Your task to perform on an android device: change notifications settings Image 0: 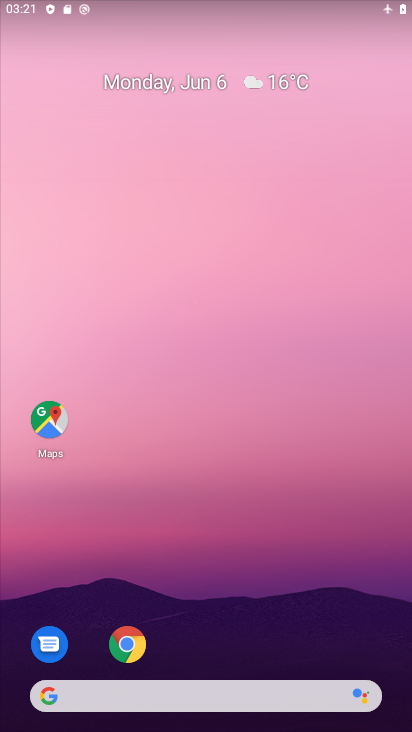
Step 0: drag from (236, 638) to (314, 11)
Your task to perform on an android device: change notifications settings Image 1: 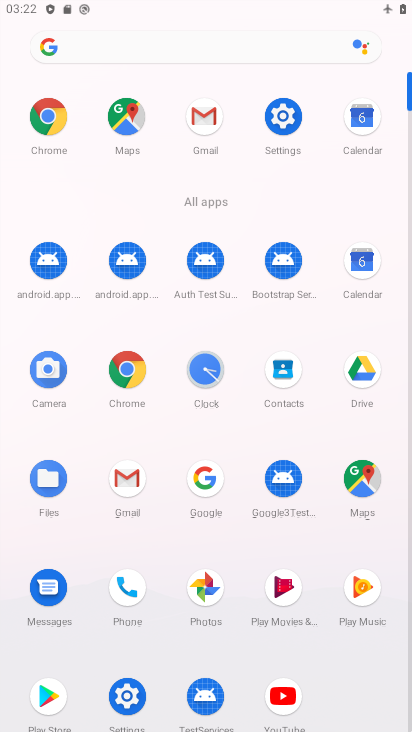
Step 1: click (134, 694)
Your task to perform on an android device: change notifications settings Image 2: 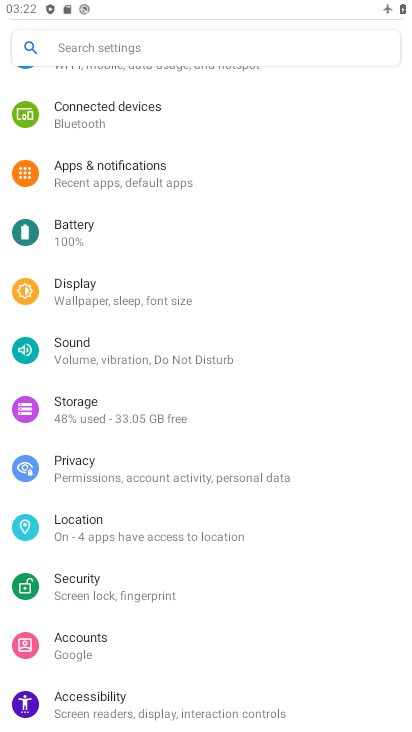
Step 2: click (133, 182)
Your task to perform on an android device: change notifications settings Image 3: 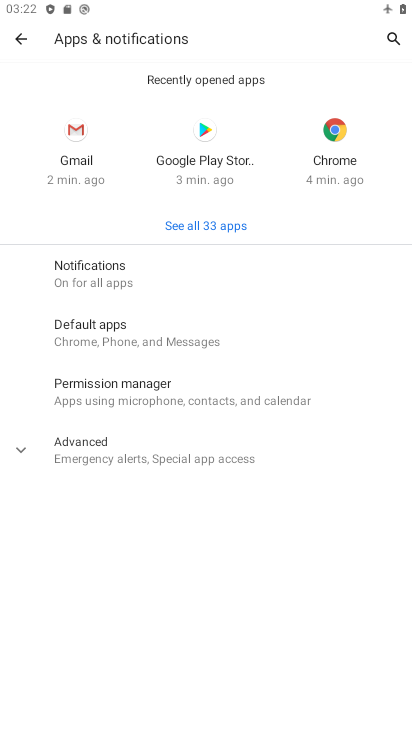
Step 3: click (119, 287)
Your task to perform on an android device: change notifications settings Image 4: 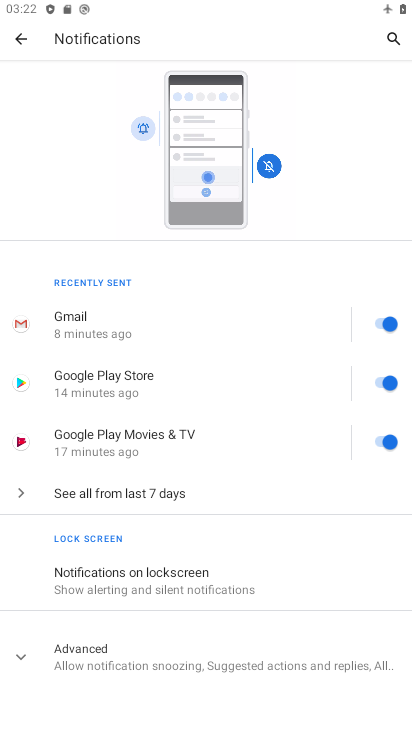
Step 4: drag from (172, 501) to (185, 375)
Your task to perform on an android device: change notifications settings Image 5: 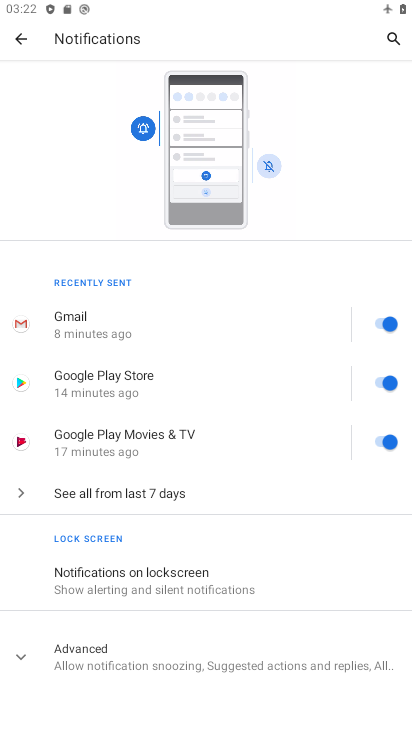
Step 5: click (157, 480)
Your task to perform on an android device: change notifications settings Image 6: 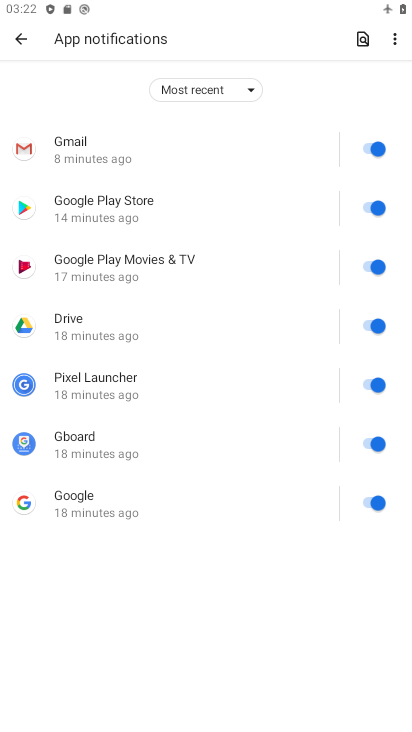
Step 6: click (358, 145)
Your task to perform on an android device: change notifications settings Image 7: 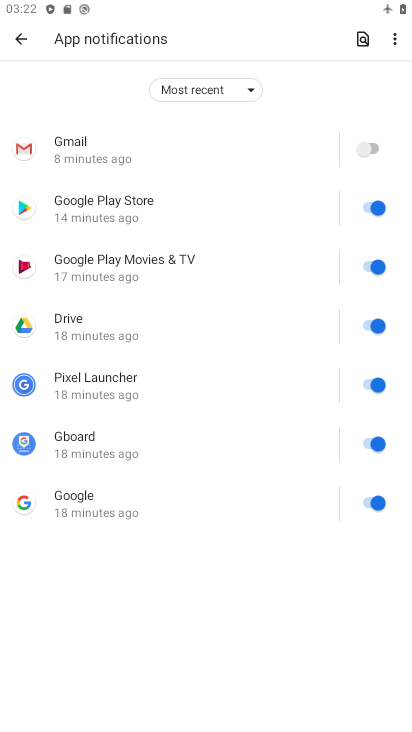
Step 7: click (369, 200)
Your task to perform on an android device: change notifications settings Image 8: 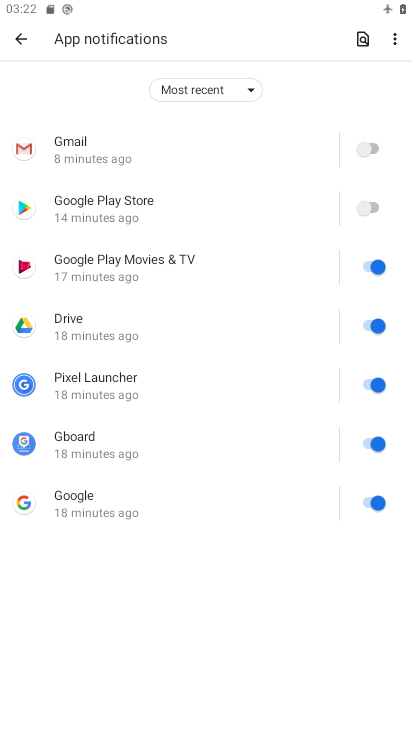
Step 8: click (373, 280)
Your task to perform on an android device: change notifications settings Image 9: 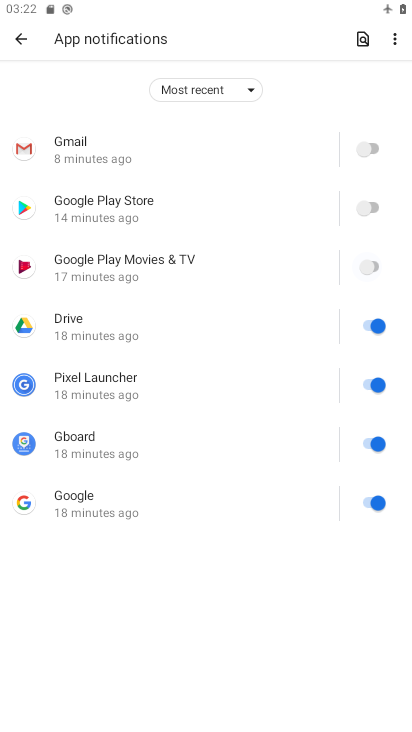
Step 9: click (369, 333)
Your task to perform on an android device: change notifications settings Image 10: 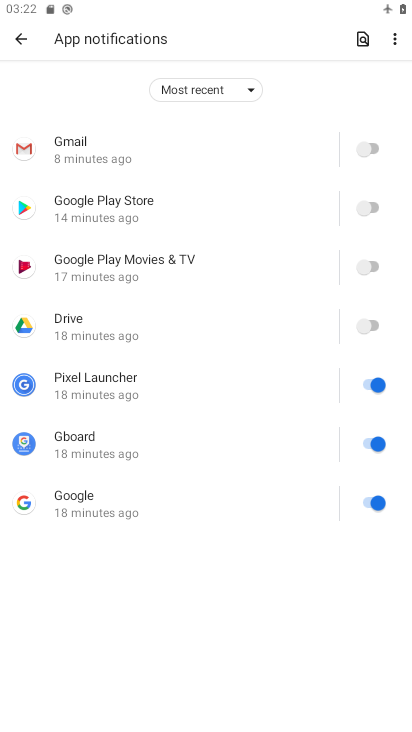
Step 10: click (367, 374)
Your task to perform on an android device: change notifications settings Image 11: 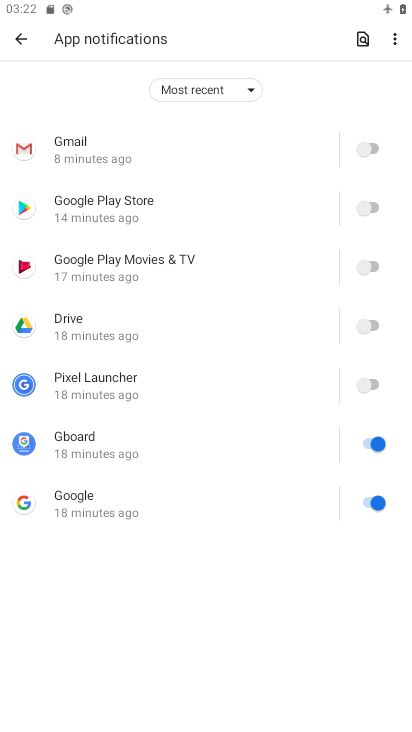
Step 11: click (370, 444)
Your task to perform on an android device: change notifications settings Image 12: 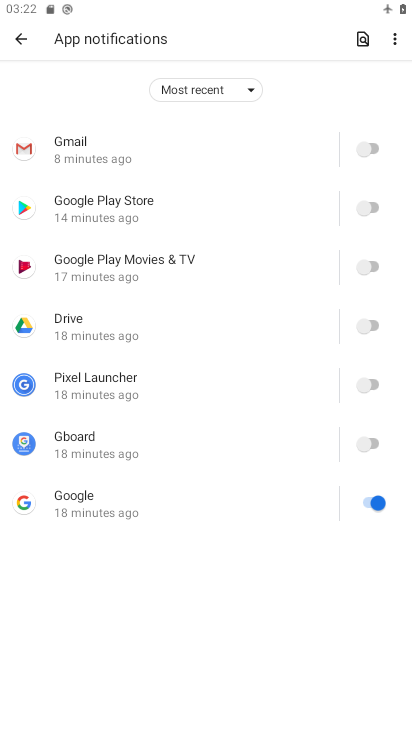
Step 12: click (373, 510)
Your task to perform on an android device: change notifications settings Image 13: 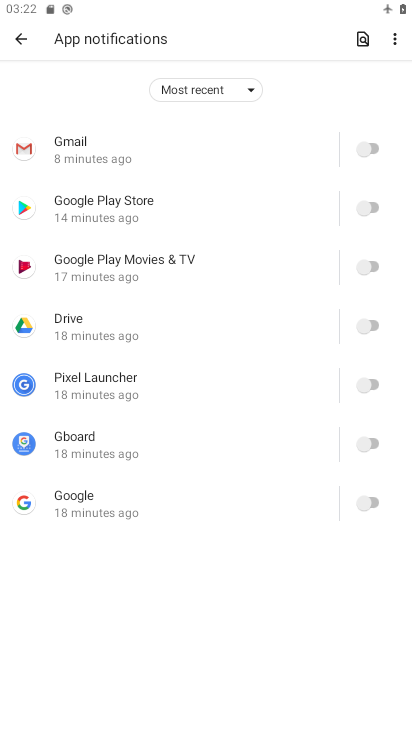
Step 13: task complete